Your task to perform on an android device: empty trash in the gmail app Image 0: 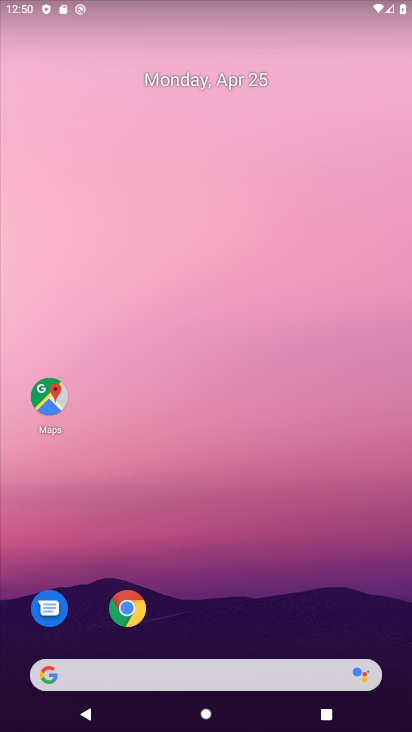
Step 0: drag from (285, 458) to (276, 15)
Your task to perform on an android device: empty trash in the gmail app Image 1: 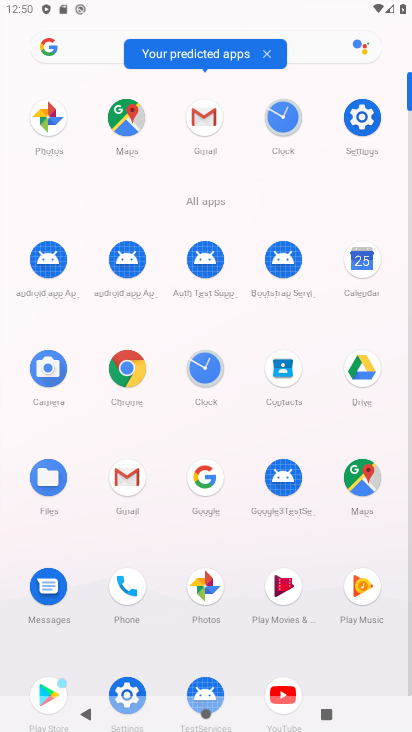
Step 1: click (201, 126)
Your task to perform on an android device: empty trash in the gmail app Image 2: 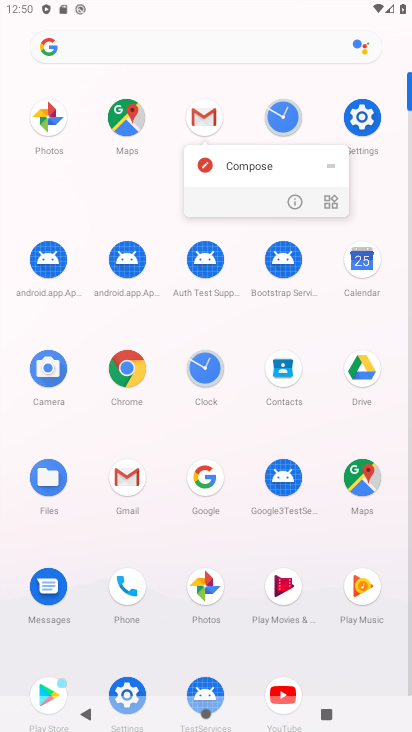
Step 2: click (210, 118)
Your task to perform on an android device: empty trash in the gmail app Image 3: 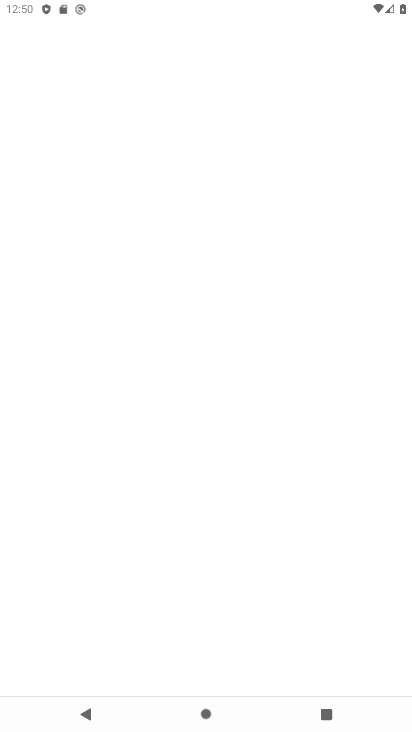
Step 3: click (210, 118)
Your task to perform on an android device: empty trash in the gmail app Image 4: 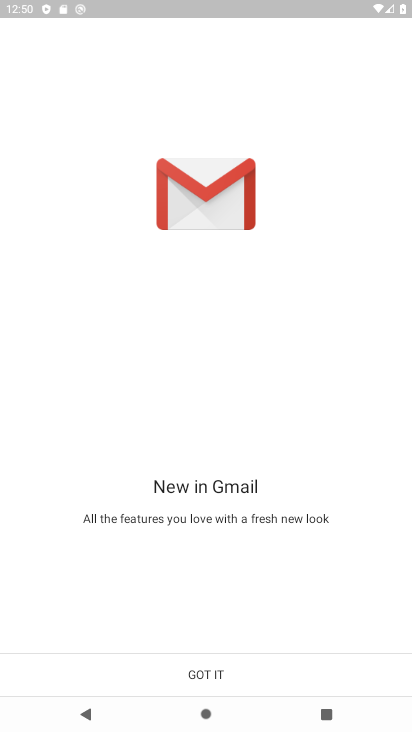
Step 4: click (209, 673)
Your task to perform on an android device: empty trash in the gmail app Image 5: 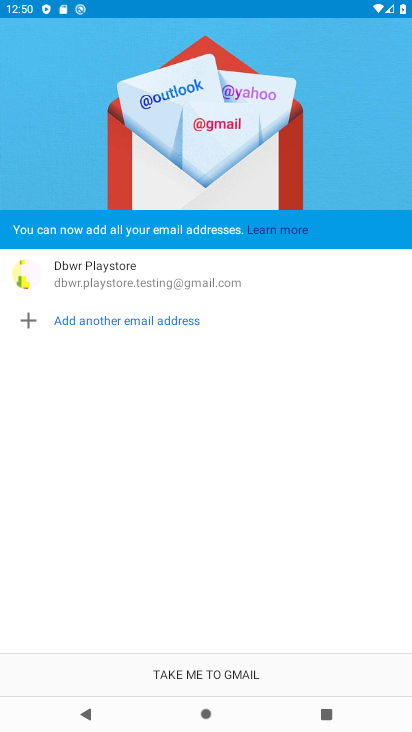
Step 5: click (209, 673)
Your task to perform on an android device: empty trash in the gmail app Image 6: 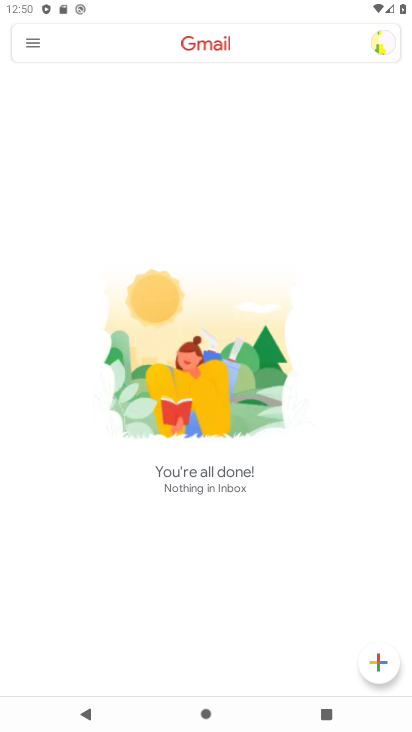
Step 6: click (32, 44)
Your task to perform on an android device: empty trash in the gmail app Image 7: 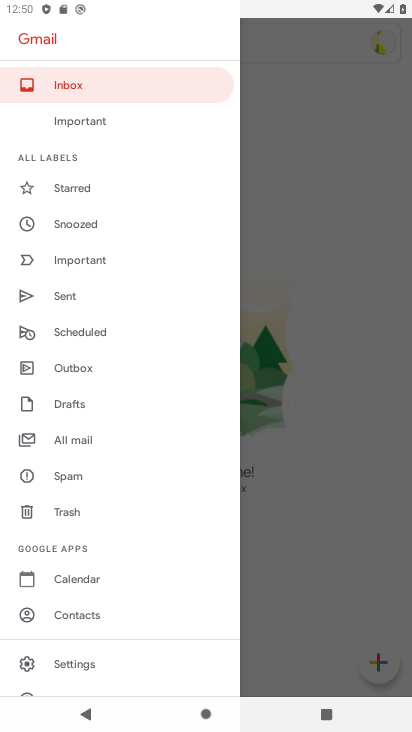
Step 7: click (67, 509)
Your task to perform on an android device: empty trash in the gmail app Image 8: 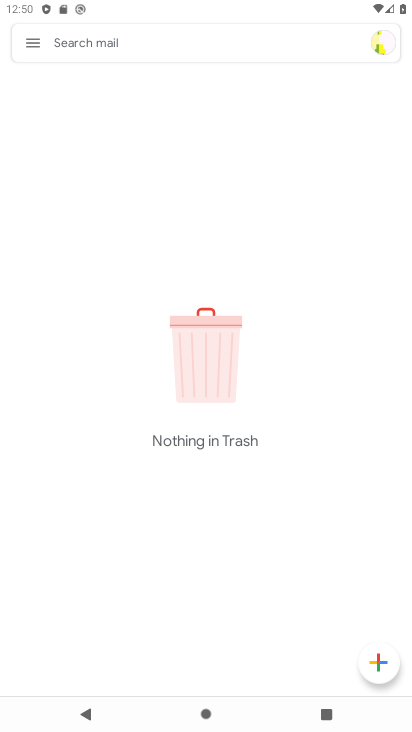
Step 8: task complete